Your task to perform on an android device: turn off javascript in the chrome app Image 0: 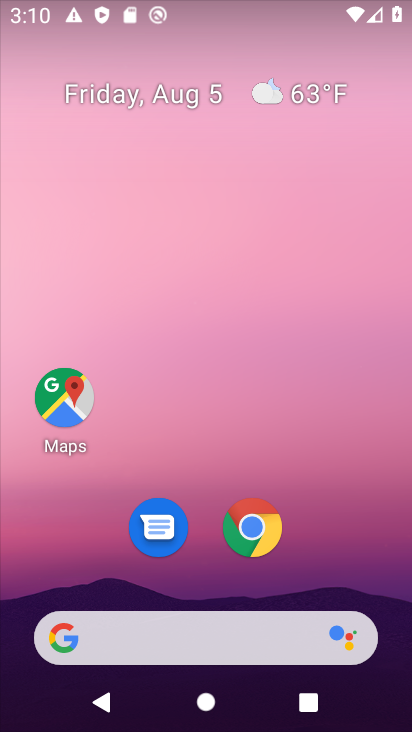
Step 0: click (221, 143)
Your task to perform on an android device: turn off javascript in the chrome app Image 1: 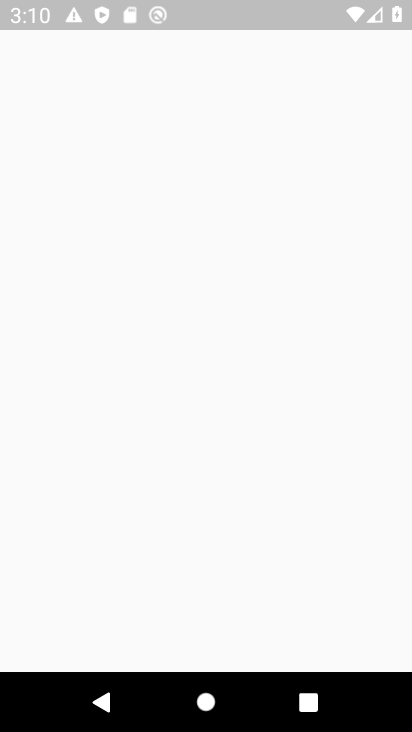
Step 1: press home button
Your task to perform on an android device: turn off javascript in the chrome app Image 2: 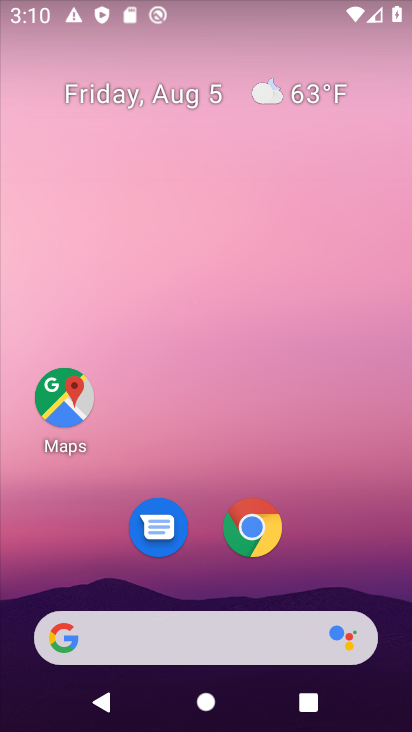
Step 2: click (240, 525)
Your task to perform on an android device: turn off javascript in the chrome app Image 3: 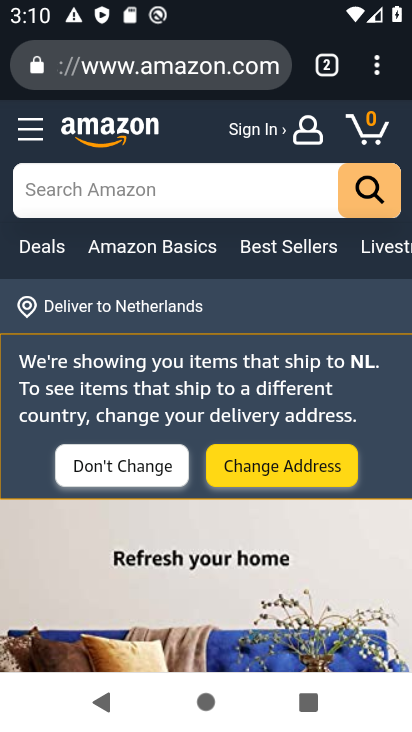
Step 3: click (378, 77)
Your task to perform on an android device: turn off javascript in the chrome app Image 4: 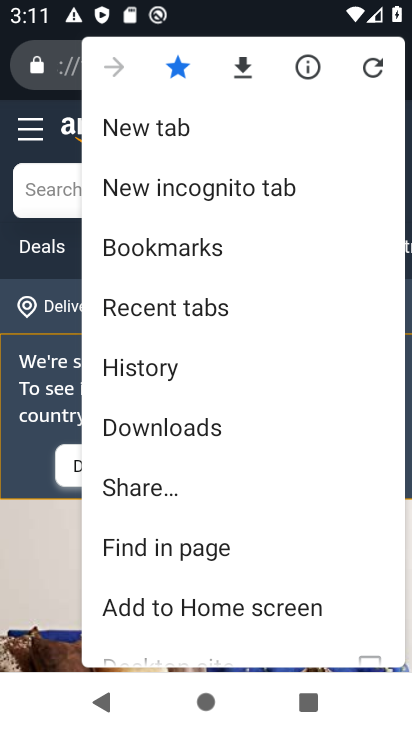
Step 4: drag from (127, 598) to (157, 250)
Your task to perform on an android device: turn off javascript in the chrome app Image 5: 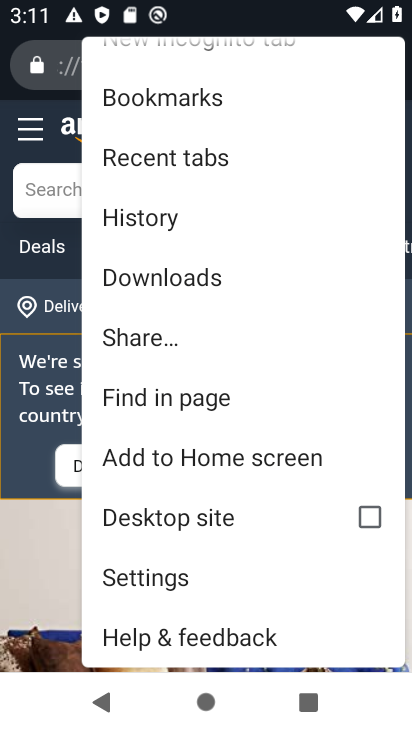
Step 5: click (153, 577)
Your task to perform on an android device: turn off javascript in the chrome app Image 6: 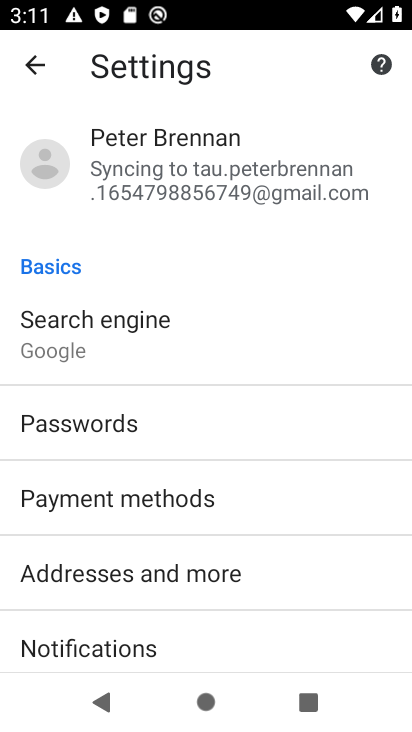
Step 6: drag from (132, 659) to (122, 296)
Your task to perform on an android device: turn off javascript in the chrome app Image 7: 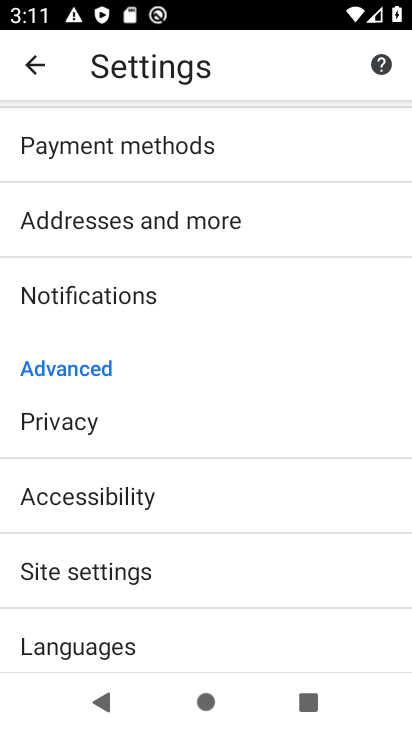
Step 7: drag from (141, 588) to (139, 320)
Your task to perform on an android device: turn off javascript in the chrome app Image 8: 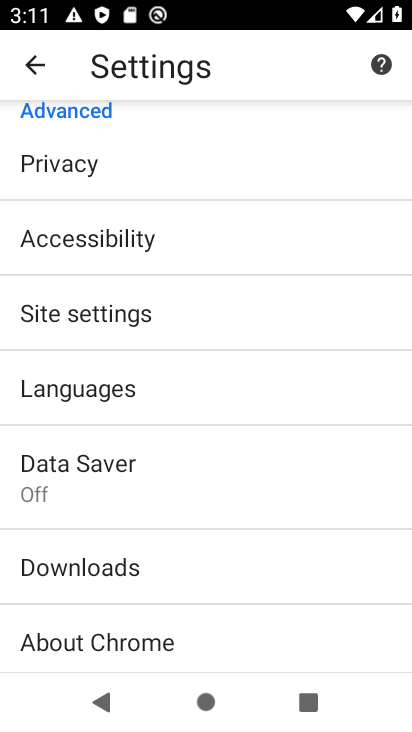
Step 8: click (79, 318)
Your task to perform on an android device: turn off javascript in the chrome app Image 9: 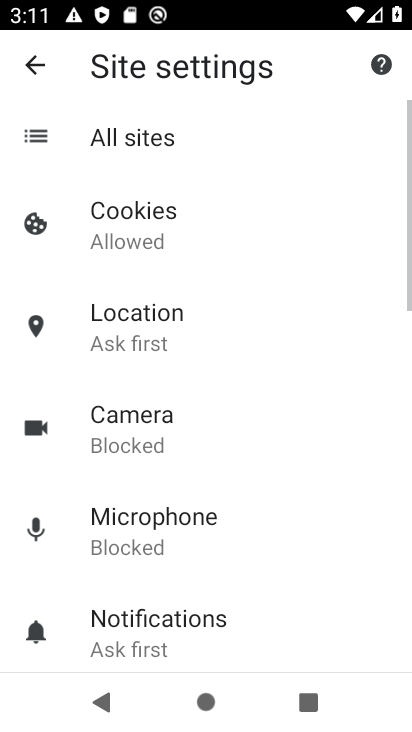
Step 9: drag from (143, 590) to (166, 233)
Your task to perform on an android device: turn off javascript in the chrome app Image 10: 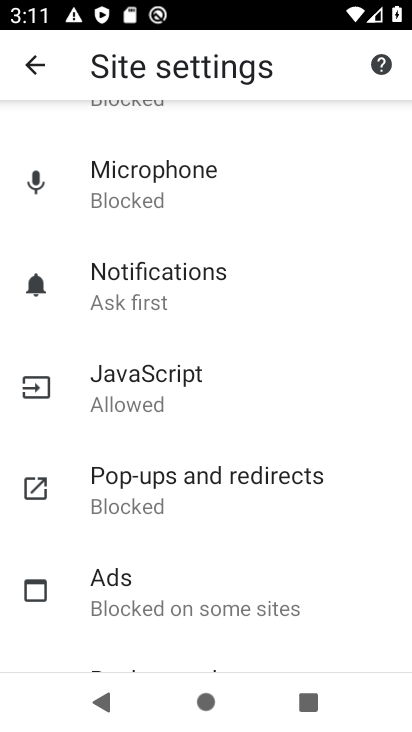
Step 10: click (133, 386)
Your task to perform on an android device: turn off javascript in the chrome app Image 11: 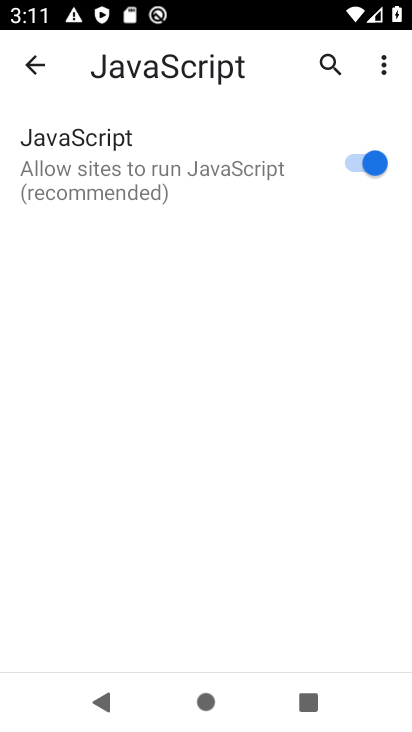
Step 11: click (371, 165)
Your task to perform on an android device: turn off javascript in the chrome app Image 12: 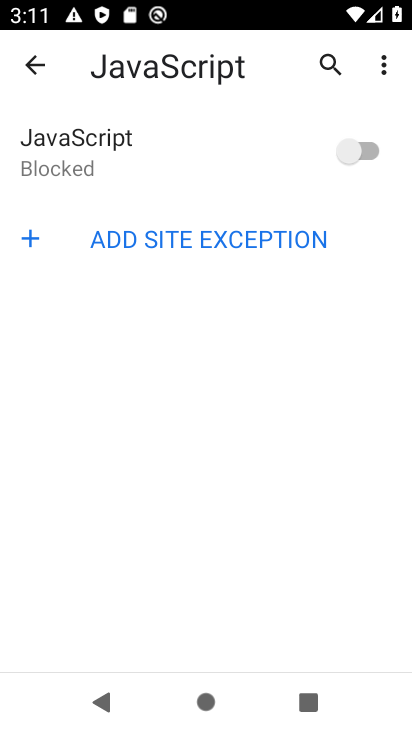
Step 12: task complete